Your task to perform on an android device: Open Maps and search for coffee Image 0: 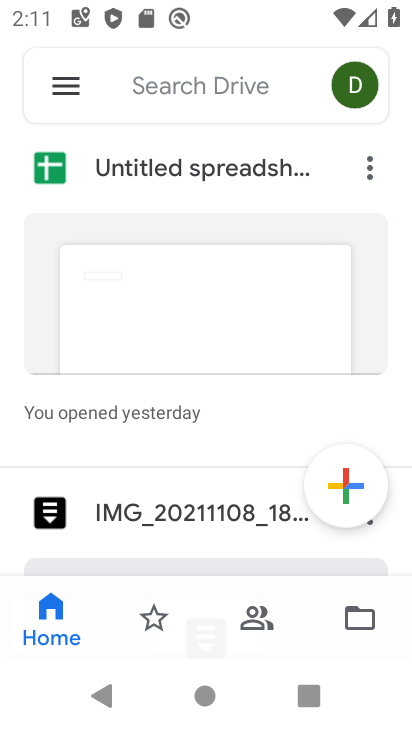
Step 0: press home button
Your task to perform on an android device: Open Maps and search for coffee Image 1: 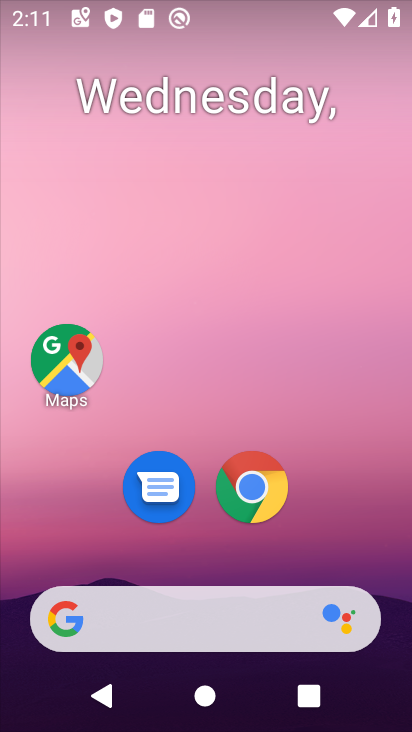
Step 1: click (55, 362)
Your task to perform on an android device: Open Maps and search for coffee Image 2: 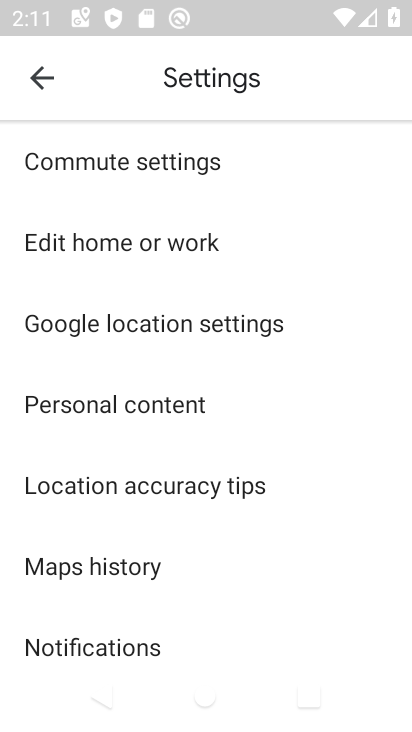
Step 2: click (44, 82)
Your task to perform on an android device: Open Maps and search for coffee Image 3: 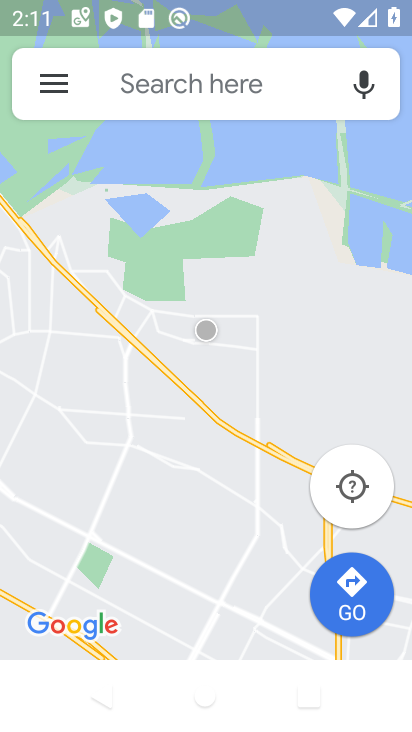
Step 3: click (130, 64)
Your task to perform on an android device: Open Maps and search for coffee Image 4: 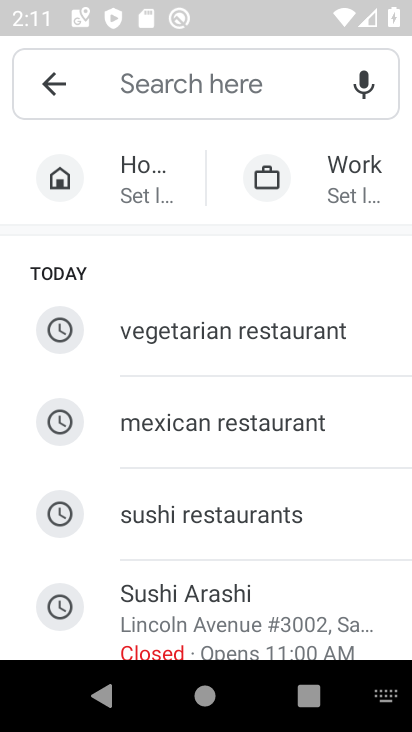
Step 4: type "coffee"
Your task to perform on an android device: Open Maps and search for coffee Image 5: 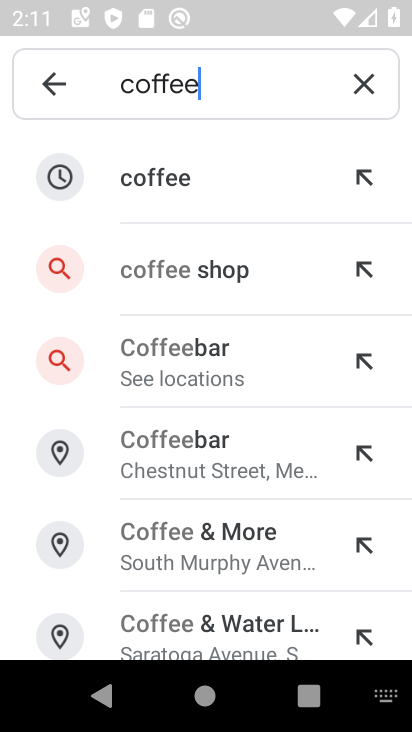
Step 5: click (164, 170)
Your task to perform on an android device: Open Maps and search for coffee Image 6: 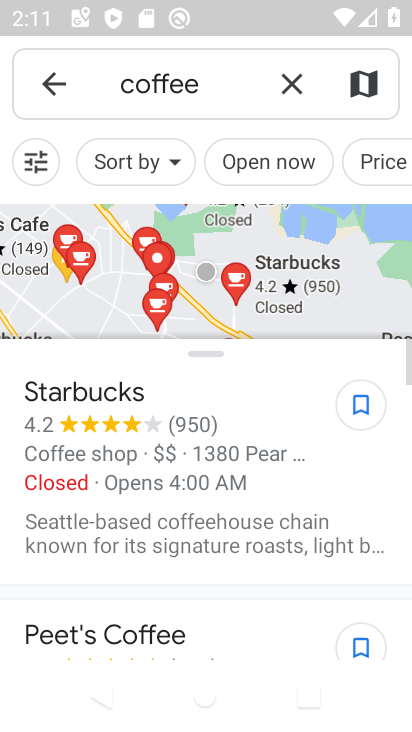
Step 6: task complete